Your task to perform on an android device: What's on my calendar tomorrow? Image 0: 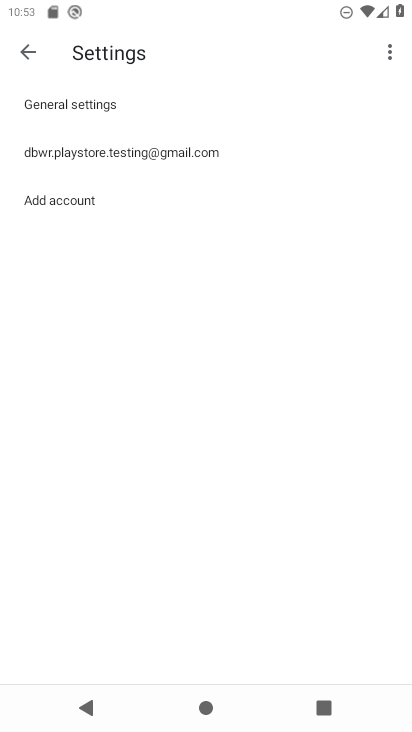
Step 0: press home button
Your task to perform on an android device: What's on my calendar tomorrow? Image 1: 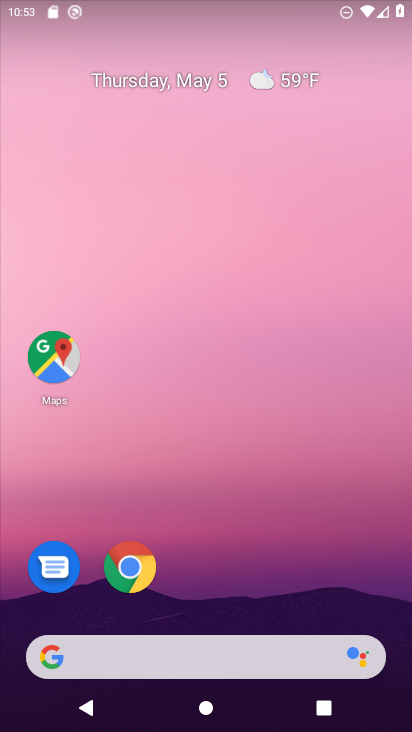
Step 1: drag from (199, 560) to (50, 141)
Your task to perform on an android device: What's on my calendar tomorrow? Image 2: 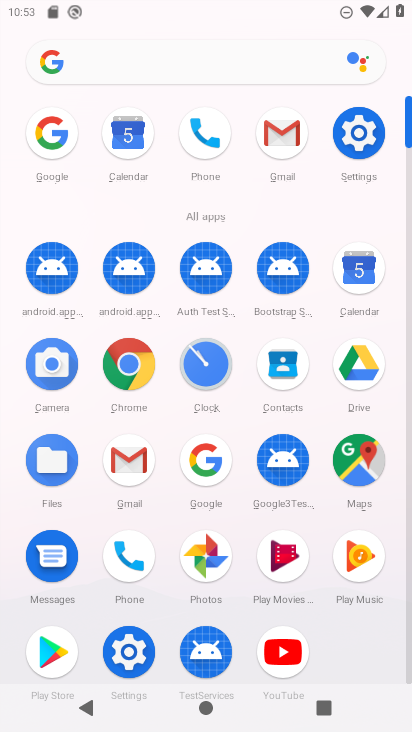
Step 2: click (131, 139)
Your task to perform on an android device: What's on my calendar tomorrow? Image 3: 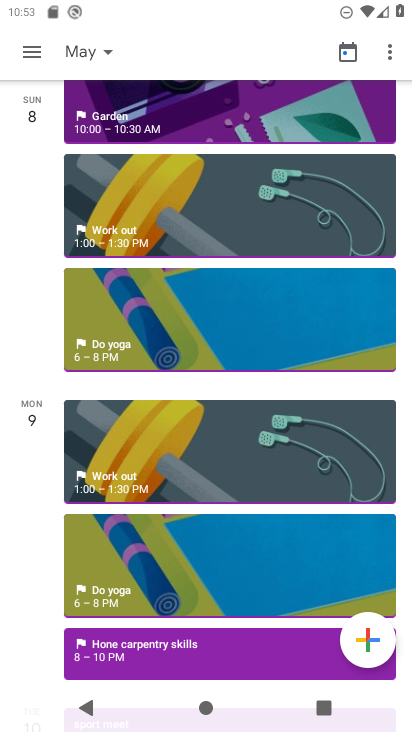
Step 3: task complete